Your task to perform on an android device: open app "Indeed Job Search" (install if not already installed) and go to login screen Image 0: 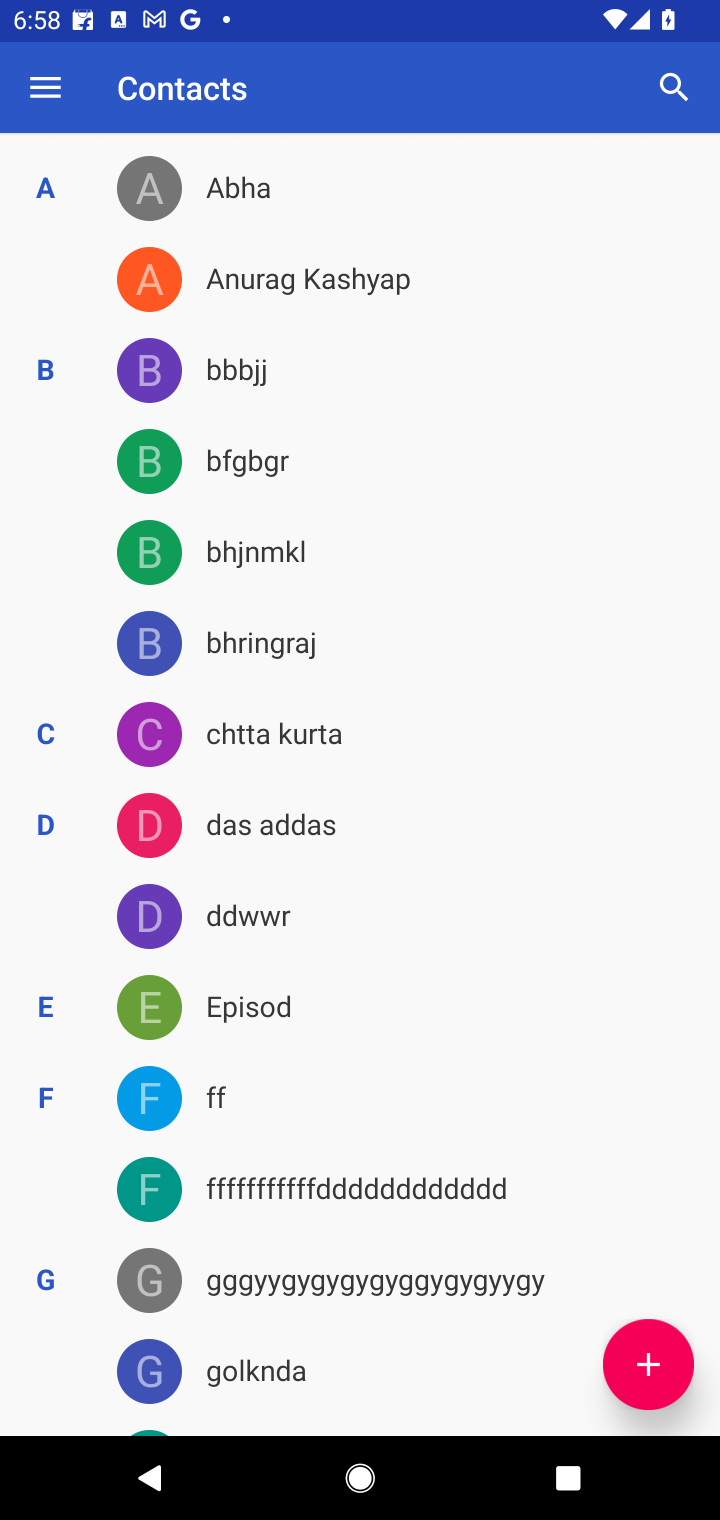
Step 0: press home button
Your task to perform on an android device: open app "Indeed Job Search" (install if not already installed) and go to login screen Image 1: 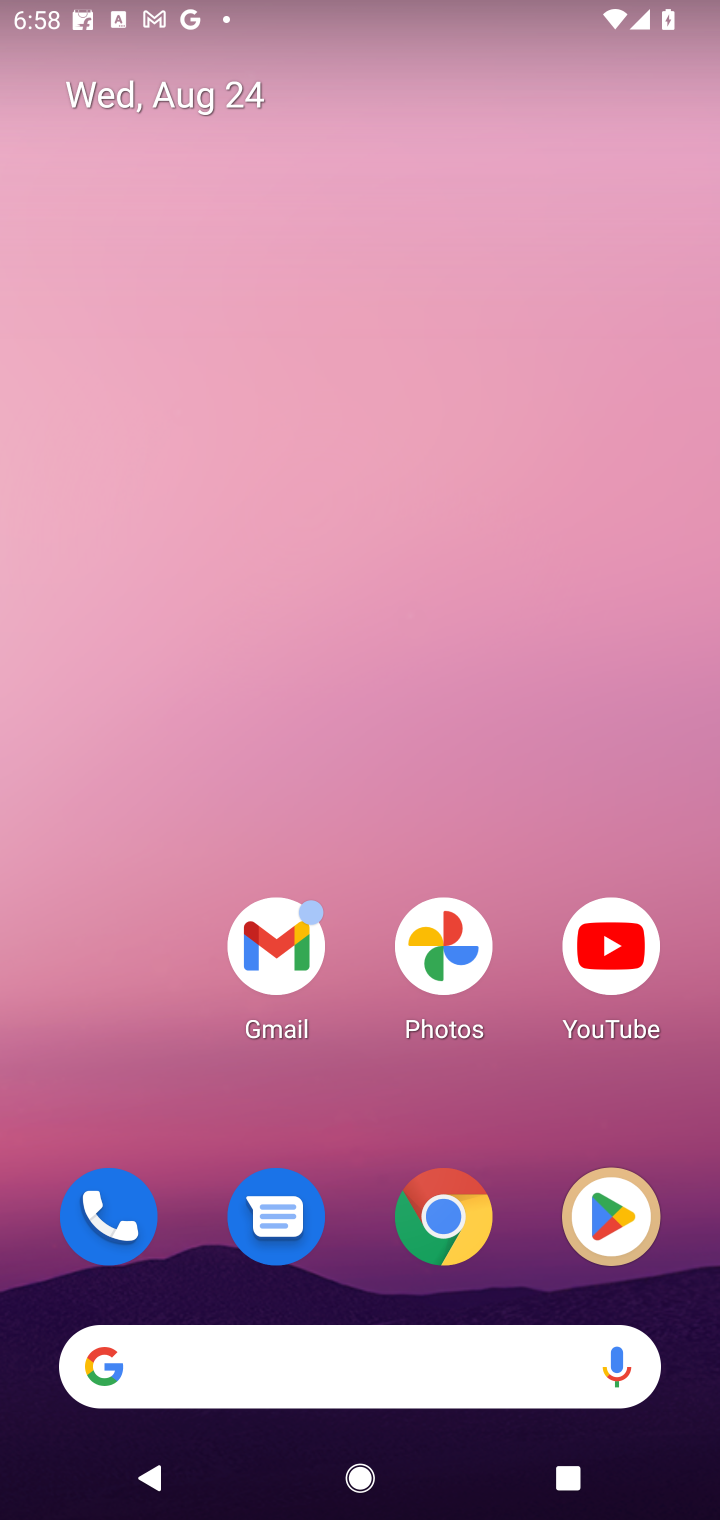
Step 1: click (603, 1219)
Your task to perform on an android device: open app "Indeed Job Search" (install if not already installed) and go to login screen Image 2: 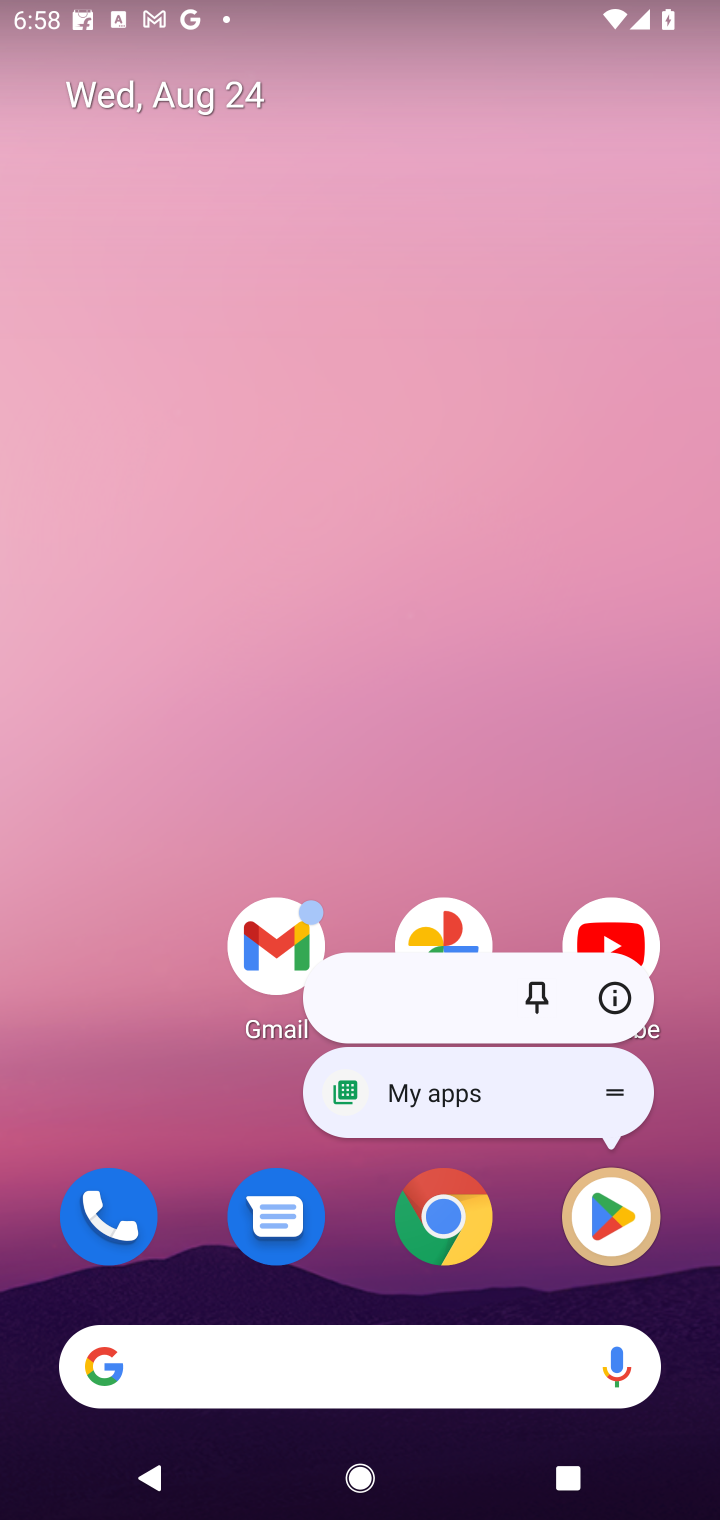
Step 2: click (624, 1242)
Your task to perform on an android device: open app "Indeed Job Search" (install if not already installed) and go to login screen Image 3: 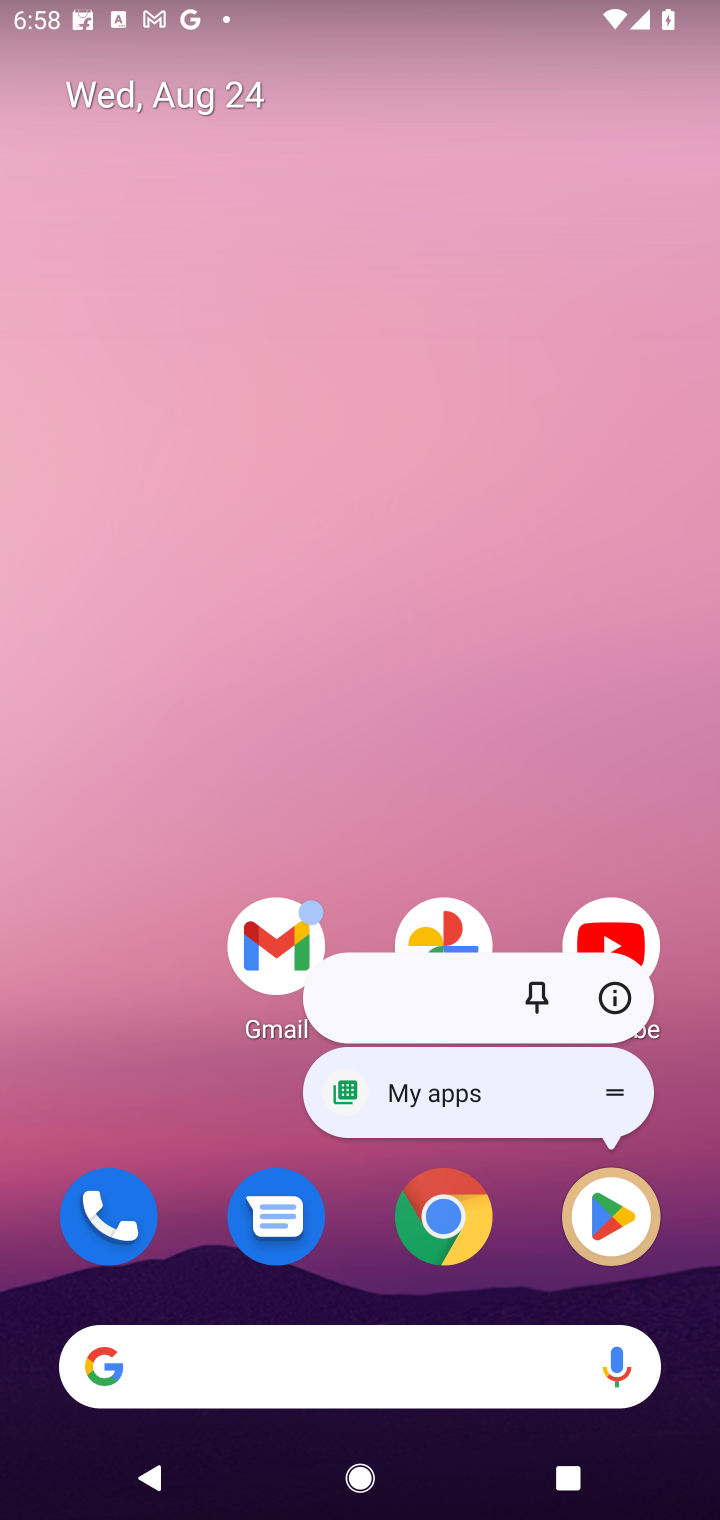
Step 3: click (603, 1208)
Your task to perform on an android device: open app "Indeed Job Search" (install if not already installed) and go to login screen Image 4: 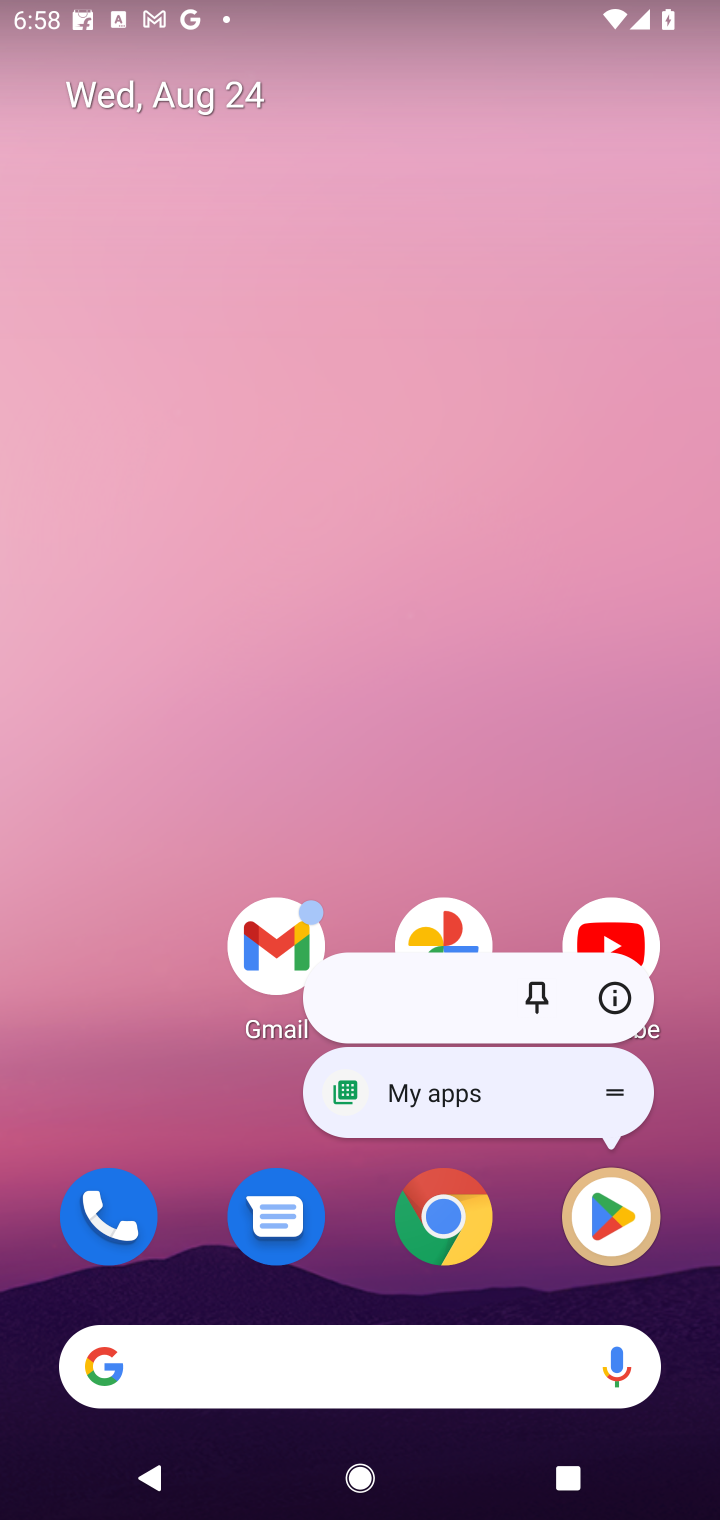
Step 4: click (603, 1208)
Your task to perform on an android device: open app "Indeed Job Search" (install if not already installed) and go to login screen Image 5: 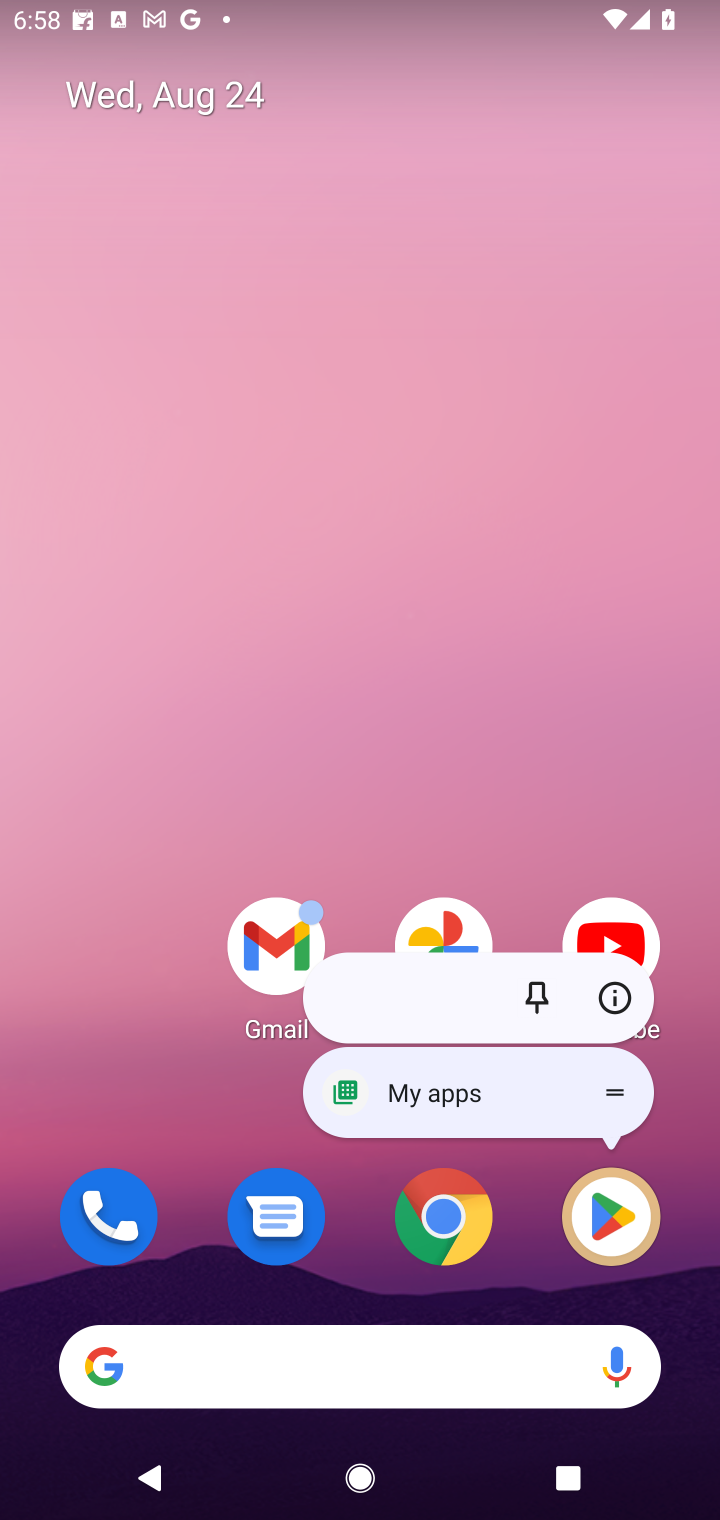
Step 5: click (608, 1193)
Your task to perform on an android device: open app "Indeed Job Search" (install if not already installed) and go to login screen Image 6: 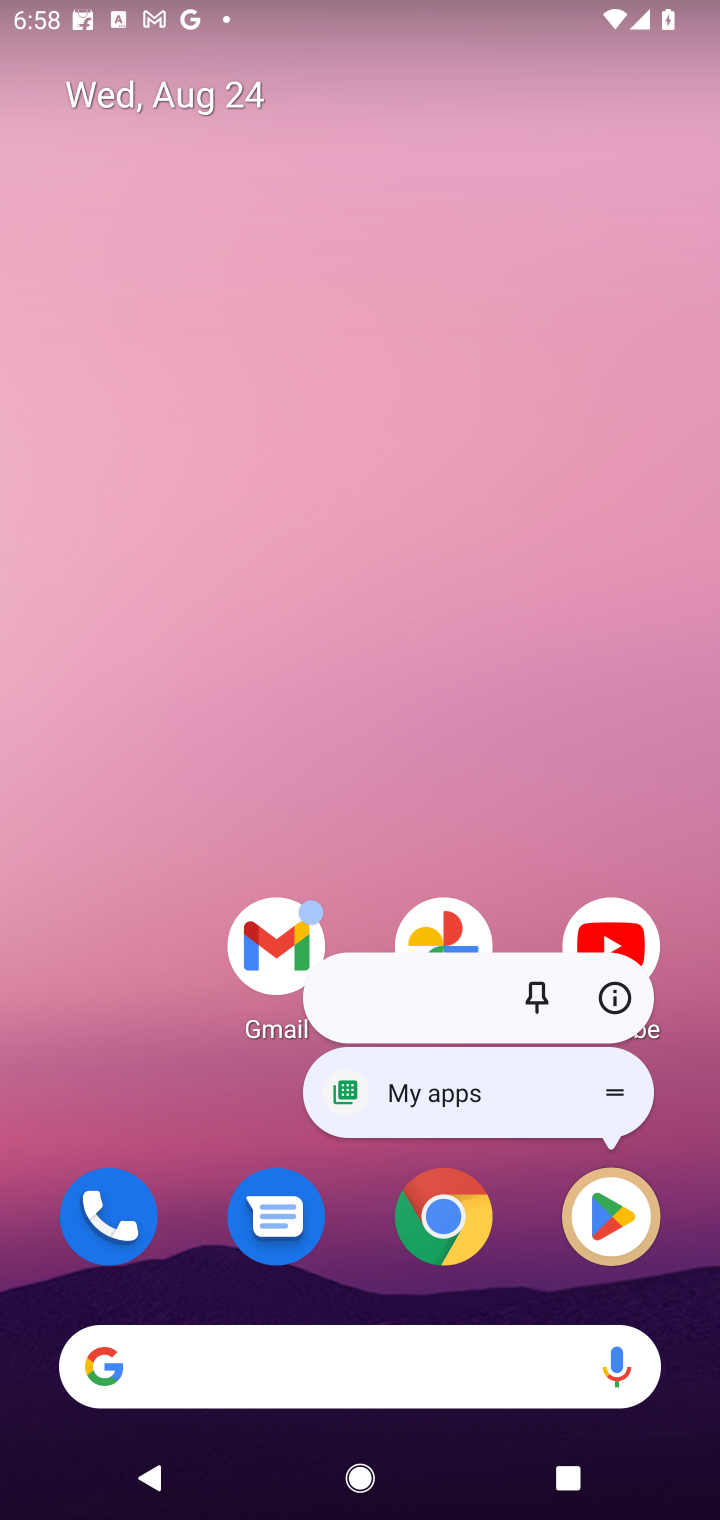
Step 6: click (601, 1203)
Your task to perform on an android device: open app "Indeed Job Search" (install if not already installed) and go to login screen Image 7: 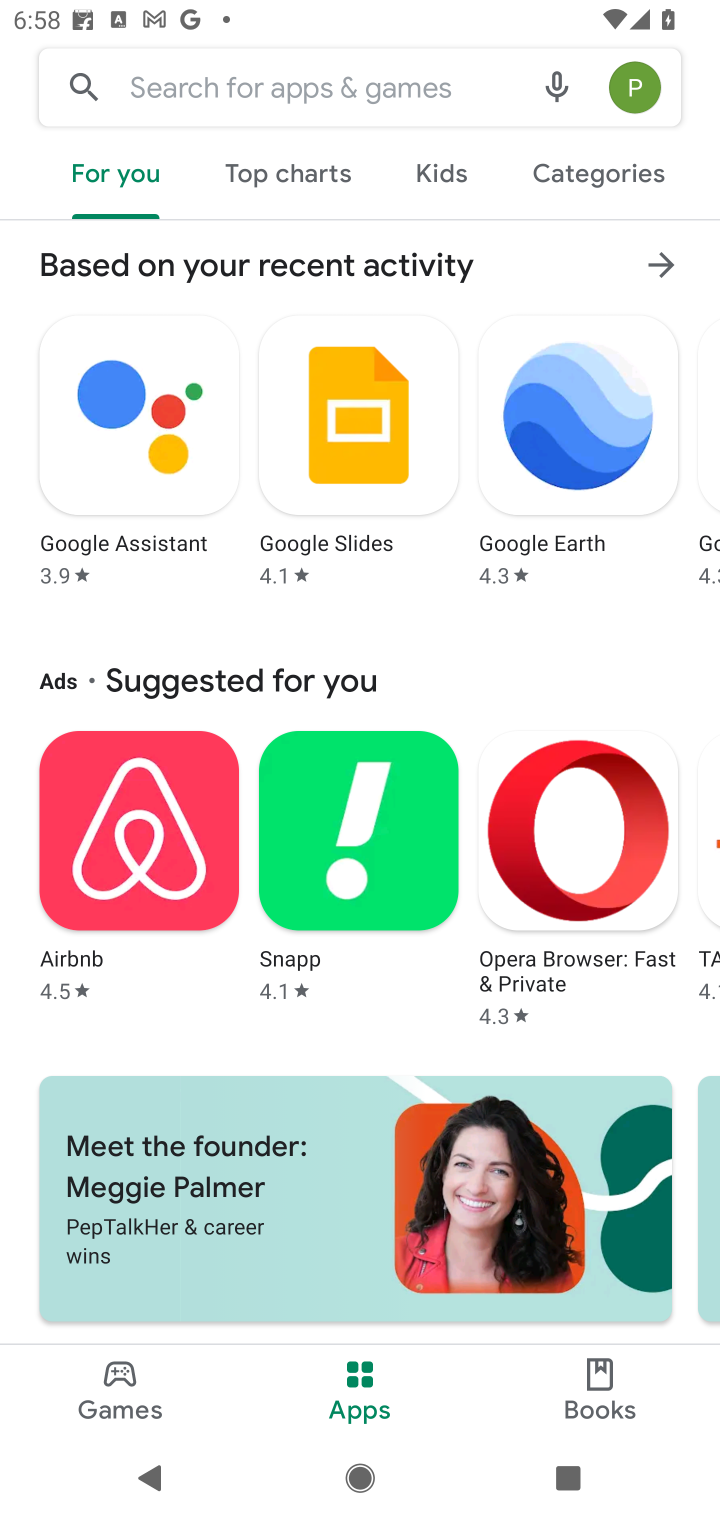
Step 7: click (436, 64)
Your task to perform on an android device: open app "Indeed Job Search" (install if not already installed) and go to login screen Image 8: 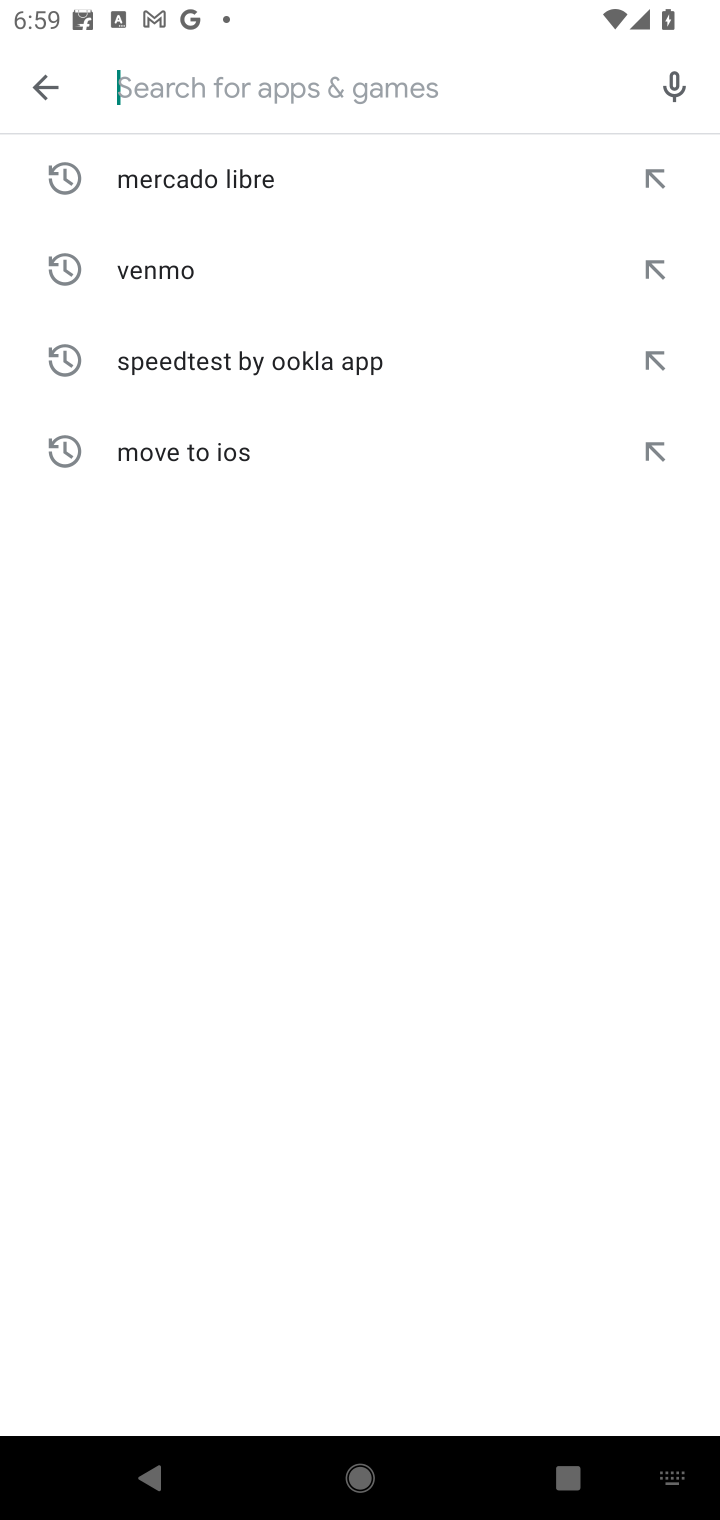
Step 8: type "Indeed Job Search"
Your task to perform on an android device: open app "Indeed Job Search" (install if not already installed) and go to login screen Image 9: 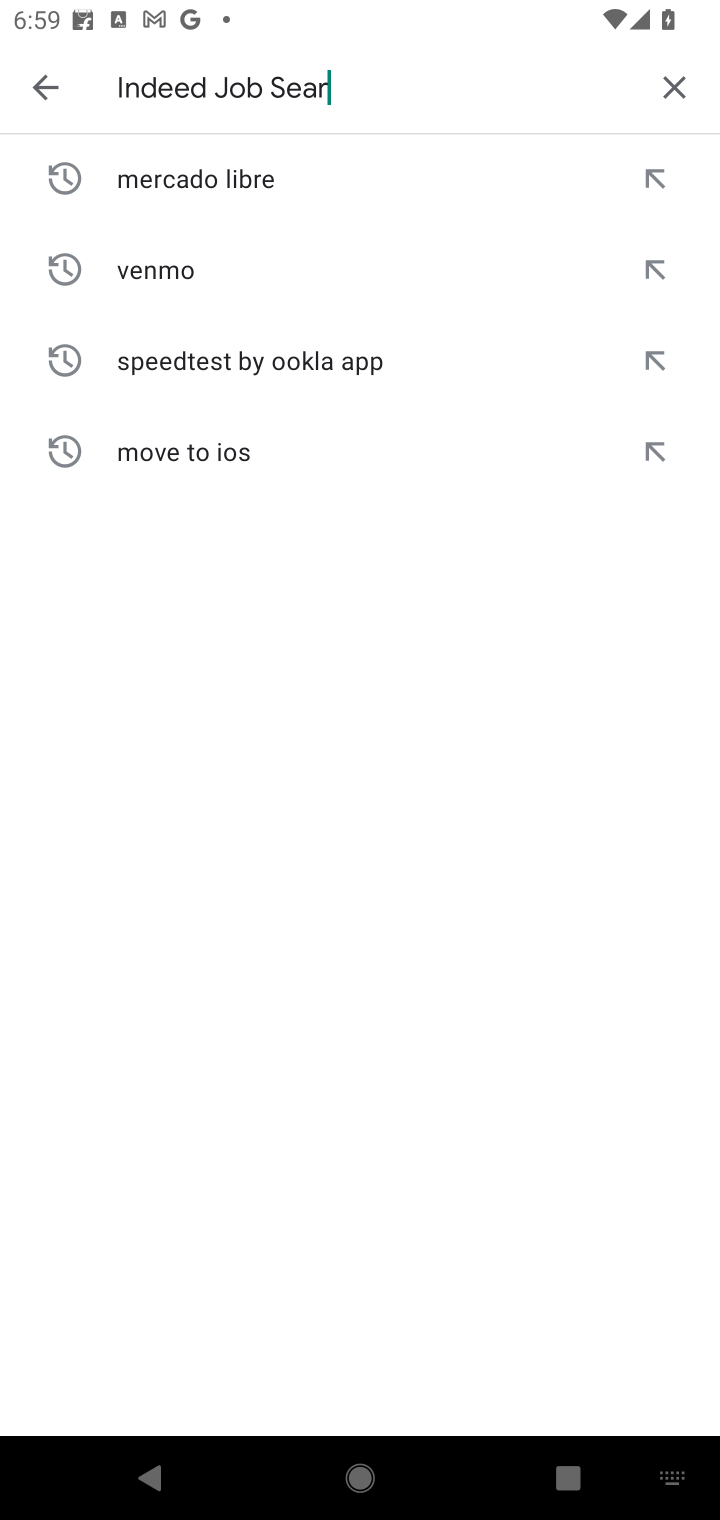
Step 9: type ""
Your task to perform on an android device: open app "Indeed Job Search" (install if not already installed) and go to login screen Image 10: 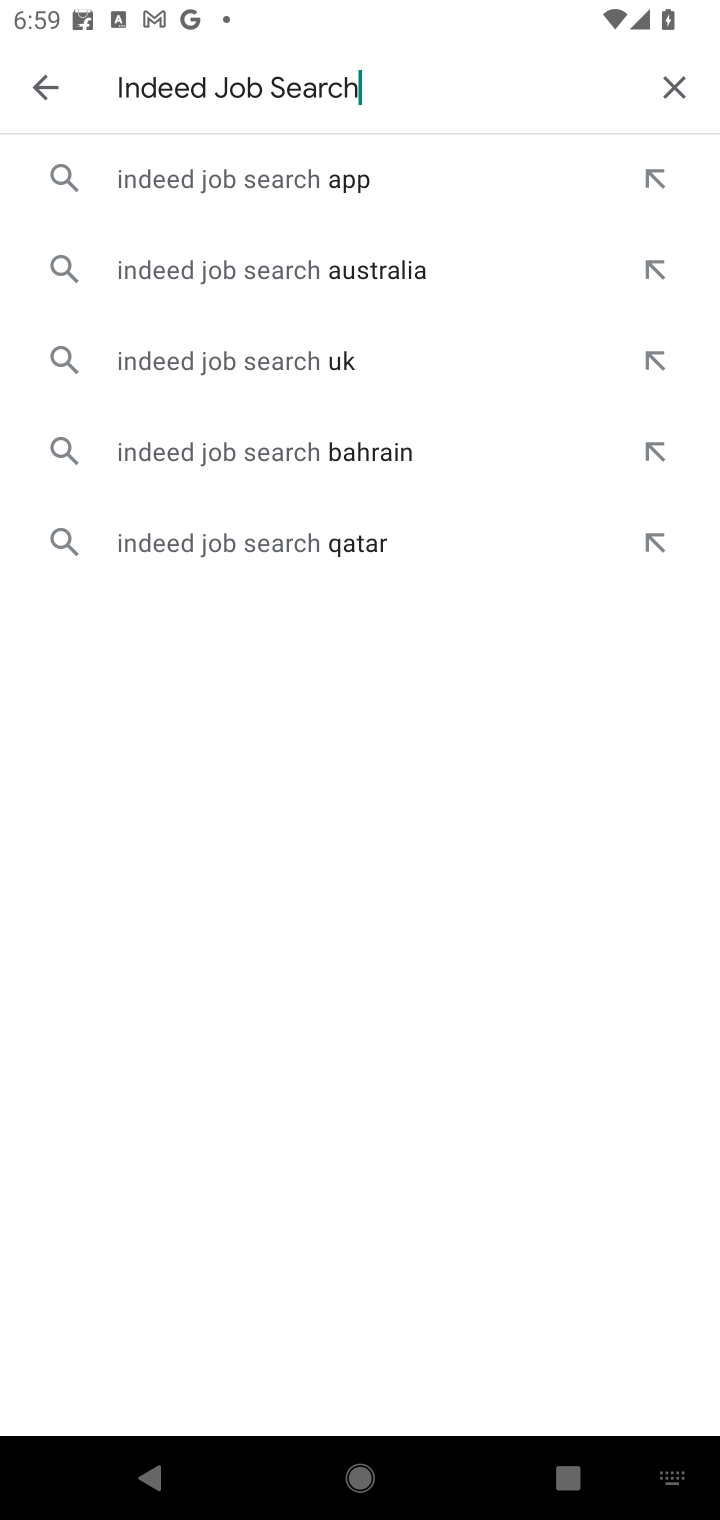
Step 10: click (295, 163)
Your task to perform on an android device: open app "Indeed Job Search" (install if not already installed) and go to login screen Image 11: 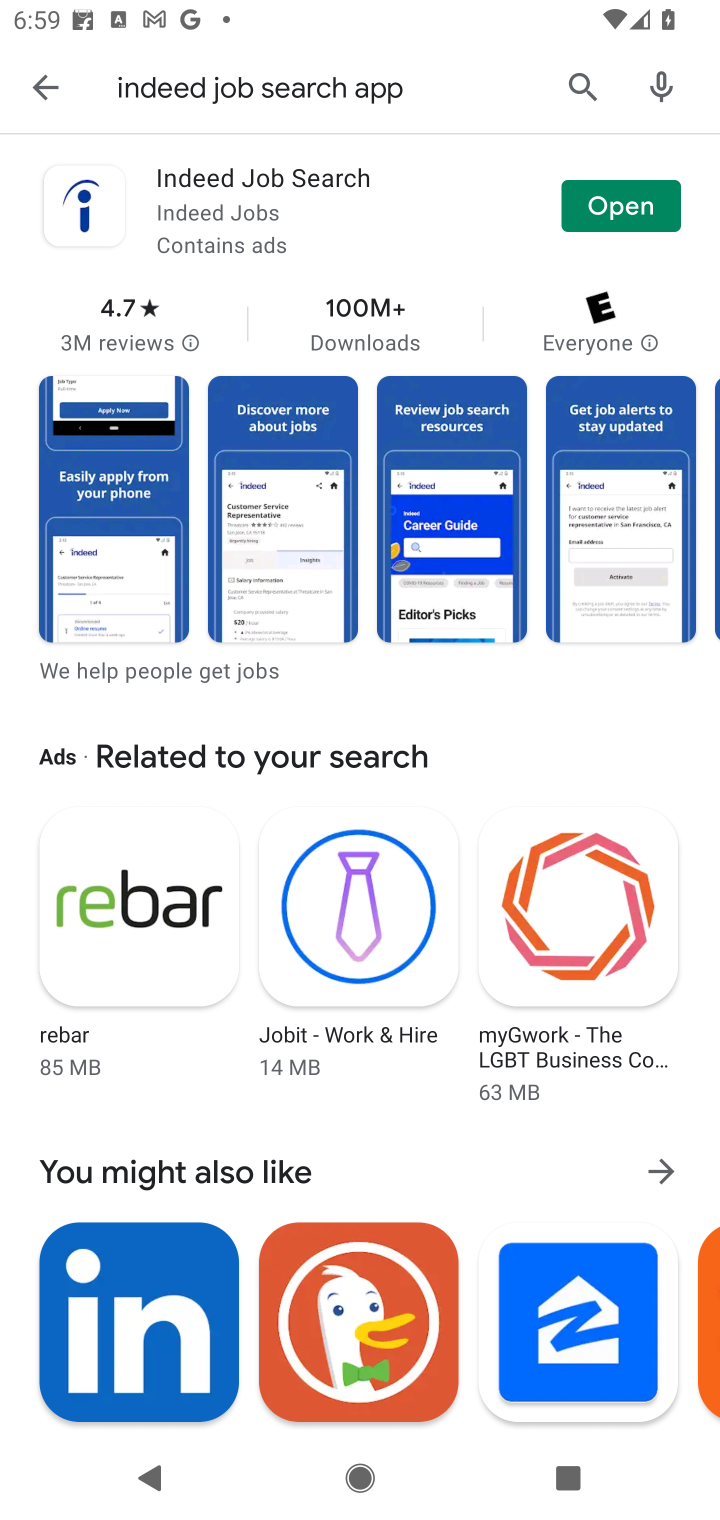
Step 11: click (659, 198)
Your task to perform on an android device: open app "Indeed Job Search" (install if not already installed) and go to login screen Image 12: 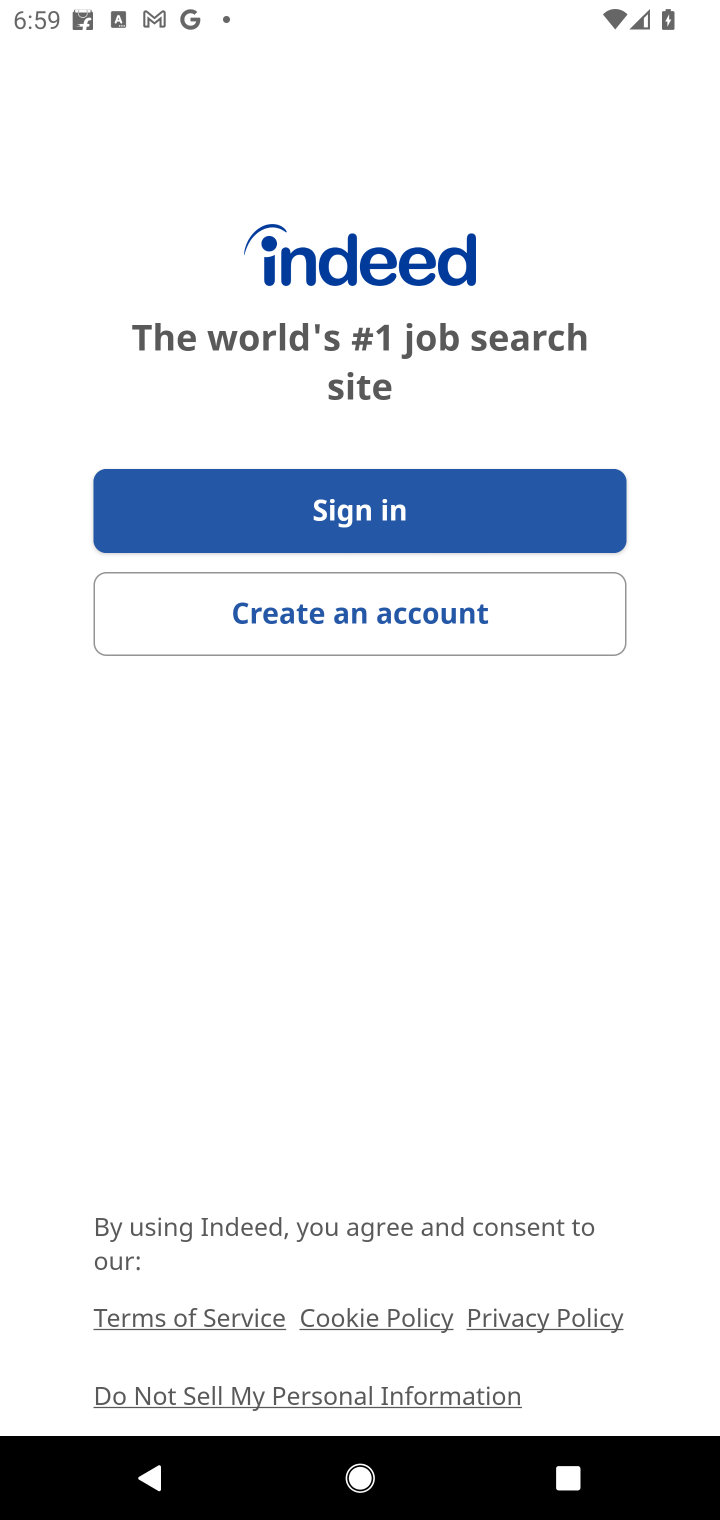
Step 12: task complete